Your task to perform on an android device: Toggle the flashlight Image 0: 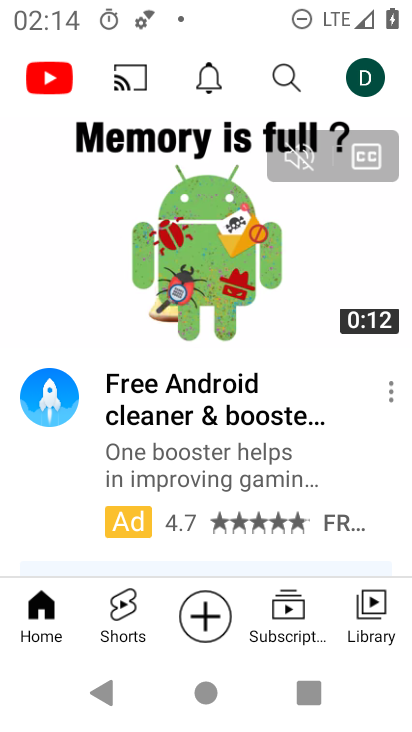
Step 0: press home button
Your task to perform on an android device: Toggle the flashlight Image 1: 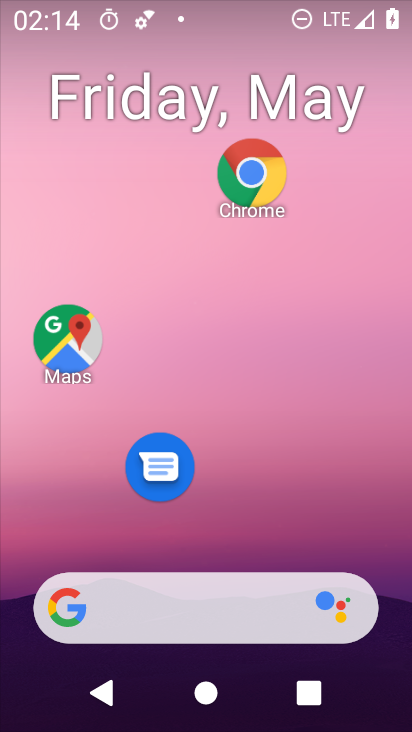
Step 1: drag from (241, 631) to (290, 277)
Your task to perform on an android device: Toggle the flashlight Image 2: 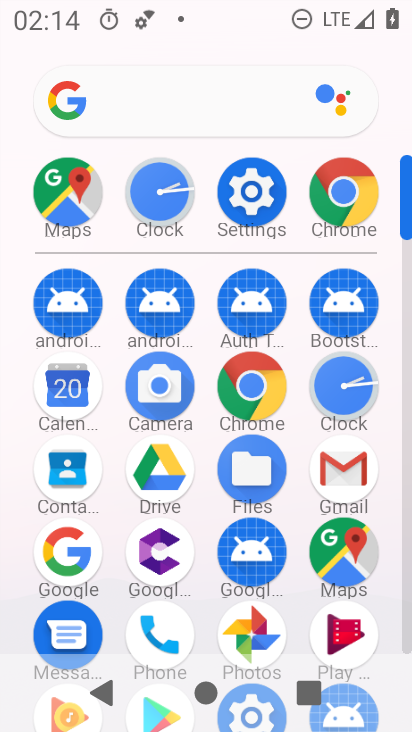
Step 2: click (254, 202)
Your task to perform on an android device: Toggle the flashlight Image 3: 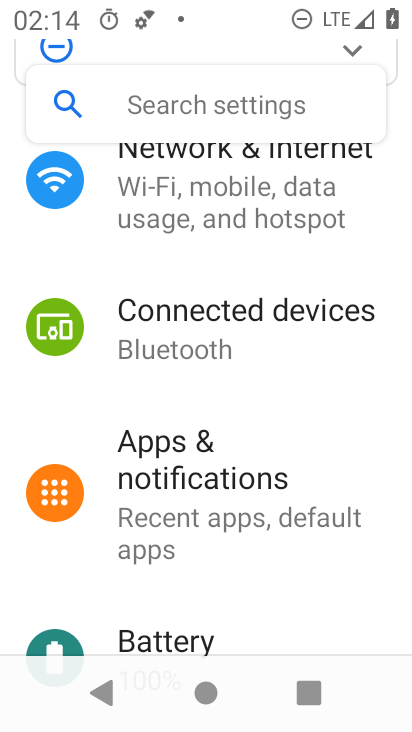
Step 3: click (159, 107)
Your task to perform on an android device: Toggle the flashlight Image 4: 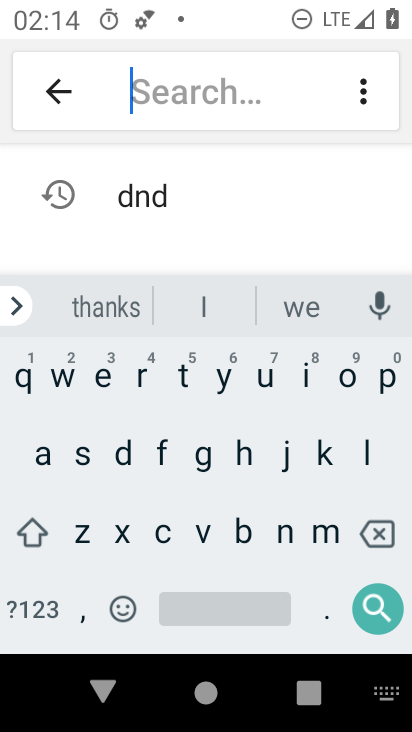
Step 4: click (165, 460)
Your task to perform on an android device: Toggle the flashlight Image 5: 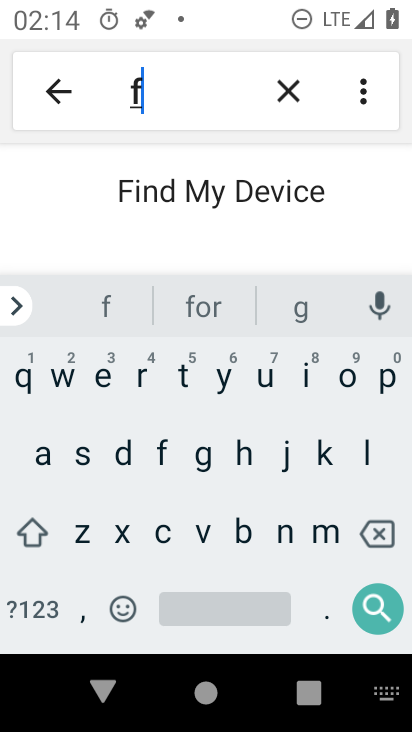
Step 5: click (378, 457)
Your task to perform on an android device: Toggle the flashlight Image 6: 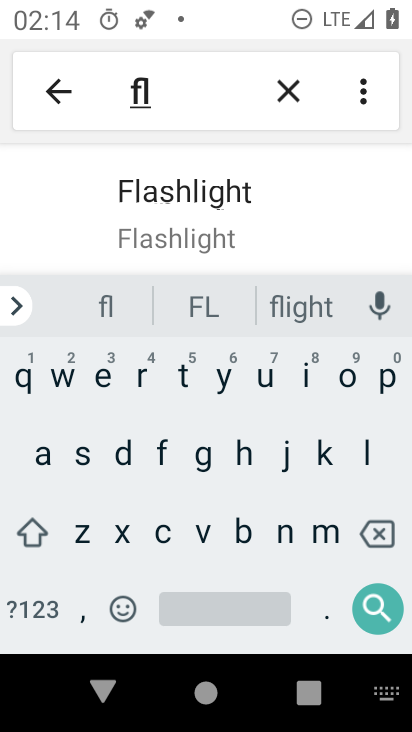
Step 6: click (185, 210)
Your task to perform on an android device: Toggle the flashlight Image 7: 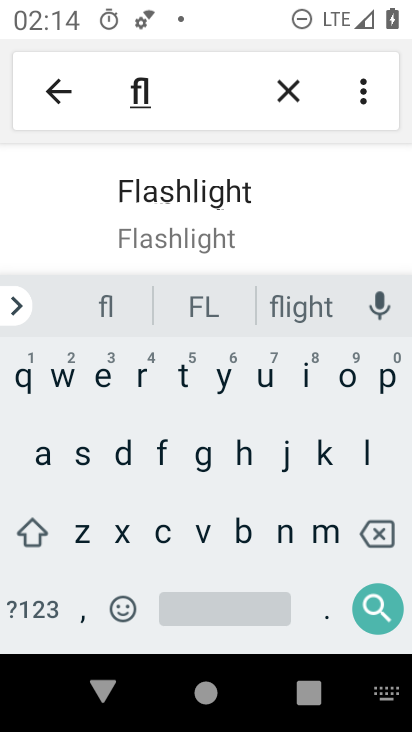
Step 7: click (185, 210)
Your task to perform on an android device: Toggle the flashlight Image 8: 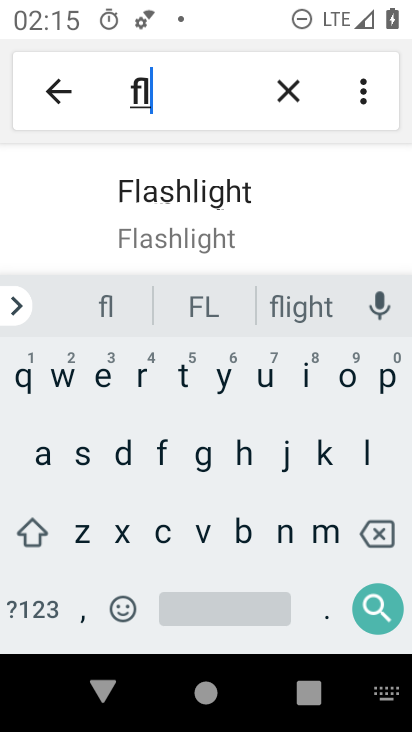
Step 8: task complete